Your task to perform on an android device: move a message to another label in the gmail app Image 0: 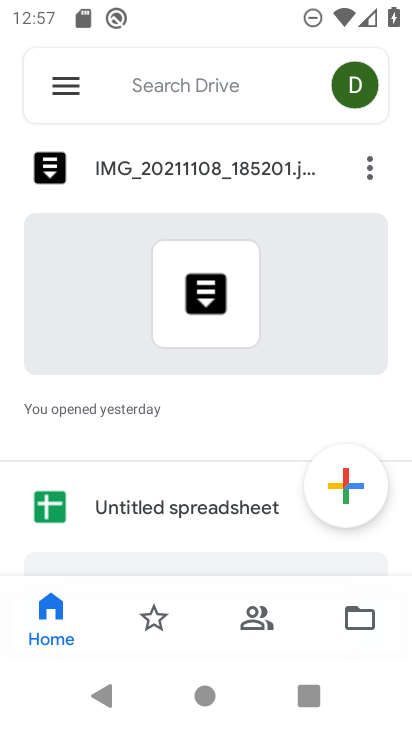
Step 0: press home button
Your task to perform on an android device: move a message to another label in the gmail app Image 1: 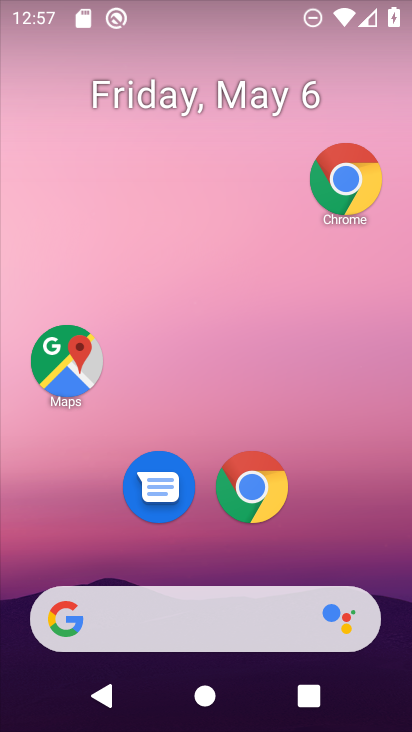
Step 1: drag from (366, 511) to (325, 58)
Your task to perform on an android device: move a message to another label in the gmail app Image 2: 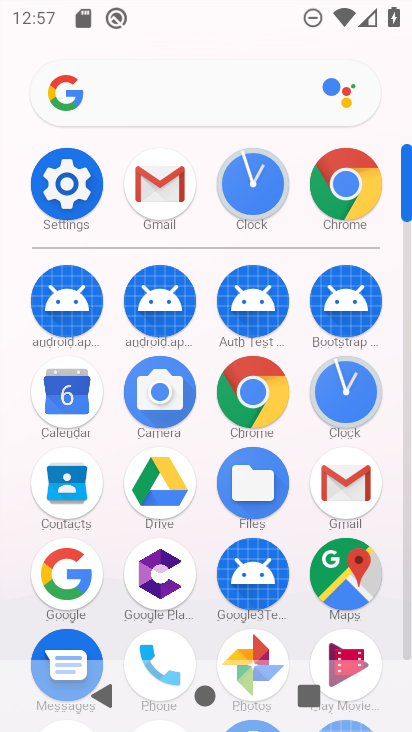
Step 2: click (76, 196)
Your task to perform on an android device: move a message to another label in the gmail app Image 3: 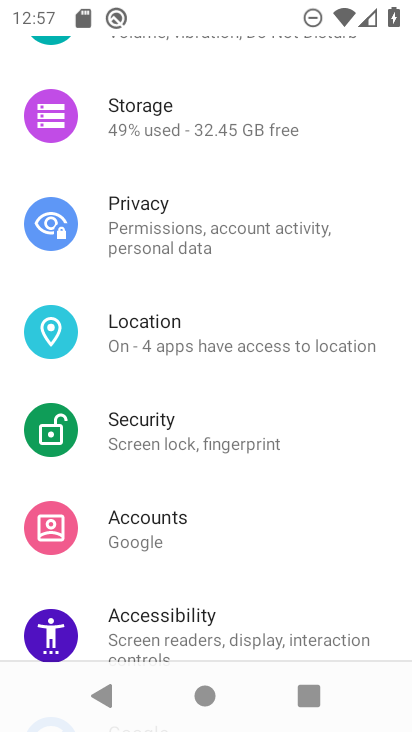
Step 3: press home button
Your task to perform on an android device: move a message to another label in the gmail app Image 4: 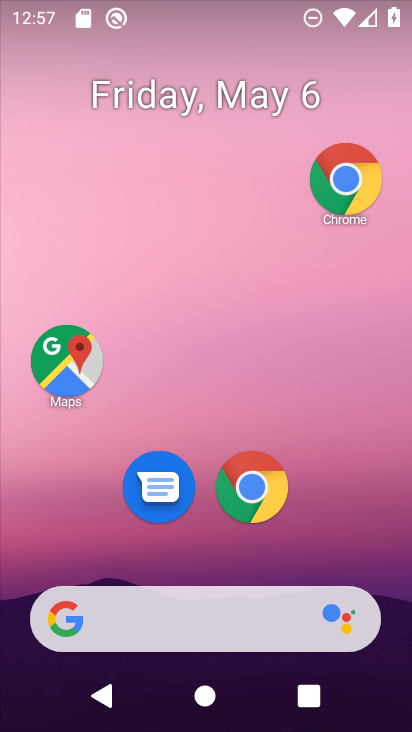
Step 4: drag from (318, 540) to (248, 207)
Your task to perform on an android device: move a message to another label in the gmail app Image 5: 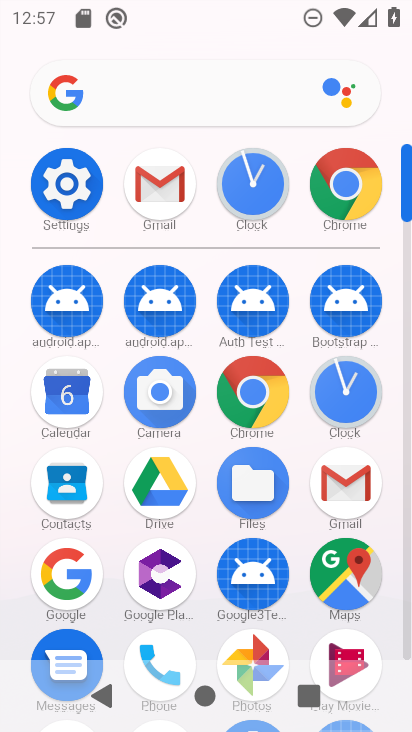
Step 5: click (156, 188)
Your task to perform on an android device: move a message to another label in the gmail app Image 6: 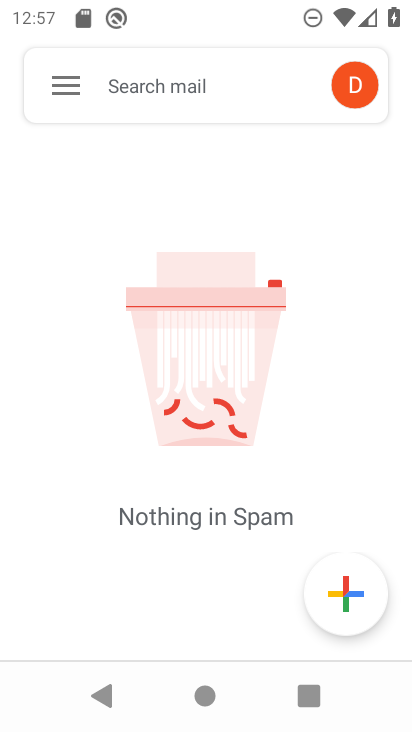
Step 6: click (74, 98)
Your task to perform on an android device: move a message to another label in the gmail app Image 7: 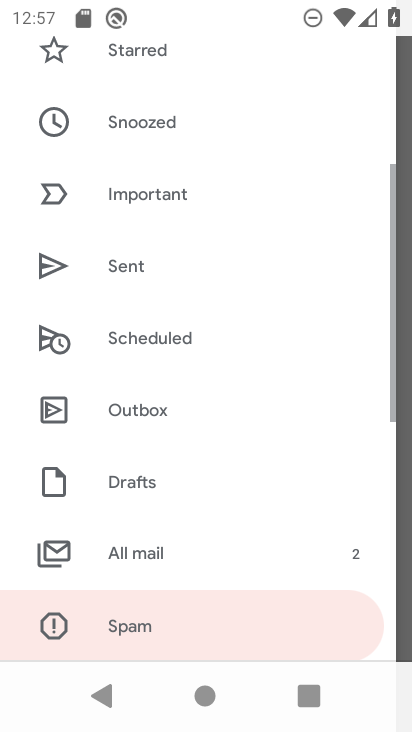
Step 7: click (161, 342)
Your task to perform on an android device: move a message to another label in the gmail app Image 8: 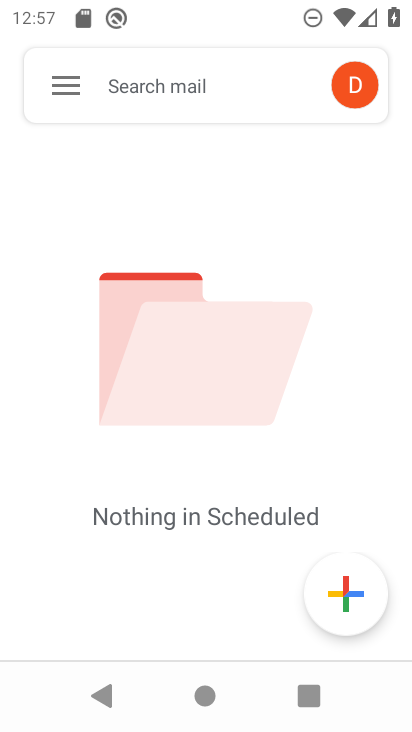
Step 8: click (67, 101)
Your task to perform on an android device: move a message to another label in the gmail app Image 9: 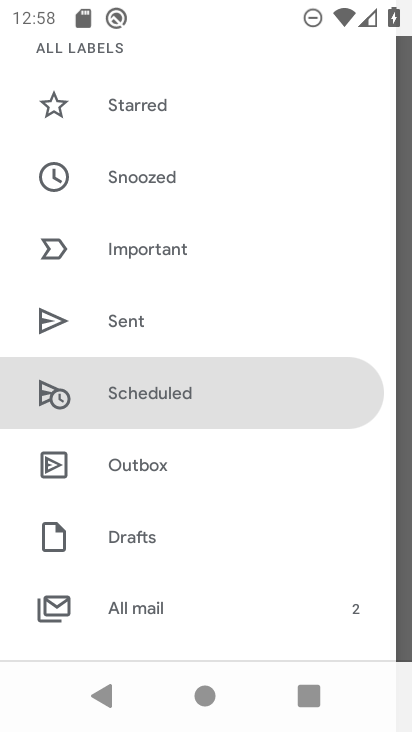
Step 9: click (148, 603)
Your task to perform on an android device: move a message to another label in the gmail app Image 10: 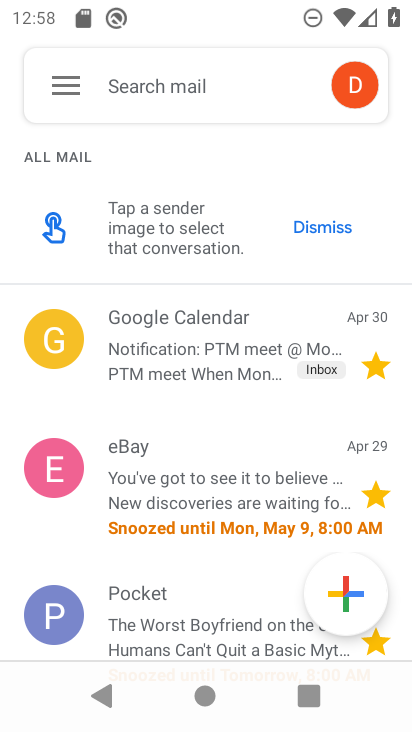
Step 10: click (210, 368)
Your task to perform on an android device: move a message to another label in the gmail app Image 11: 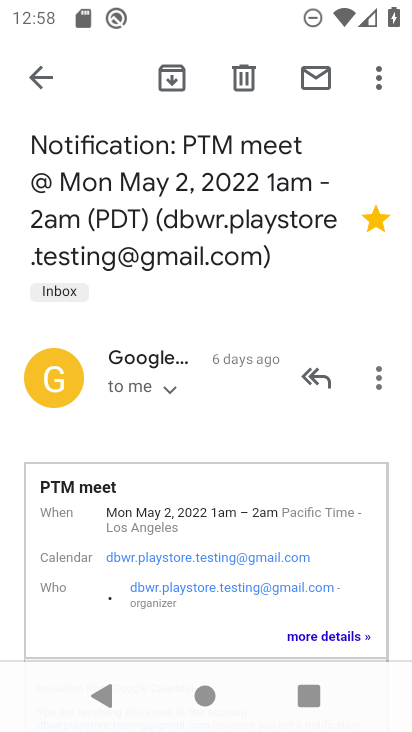
Step 11: click (384, 82)
Your task to perform on an android device: move a message to another label in the gmail app Image 12: 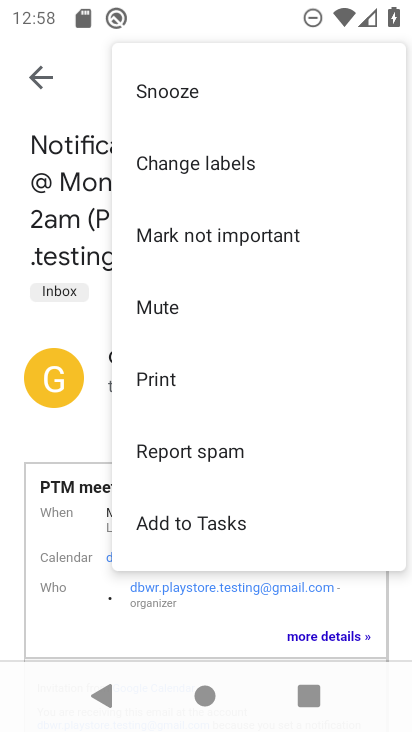
Step 12: click (240, 167)
Your task to perform on an android device: move a message to another label in the gmail app Image 13: 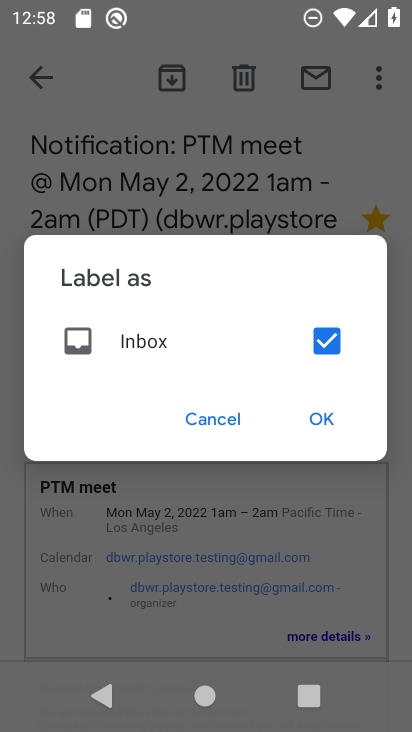
Step 13: click (321, 409)
Your task to perform on an android device: move a message to another label in the gmail app Image 14: 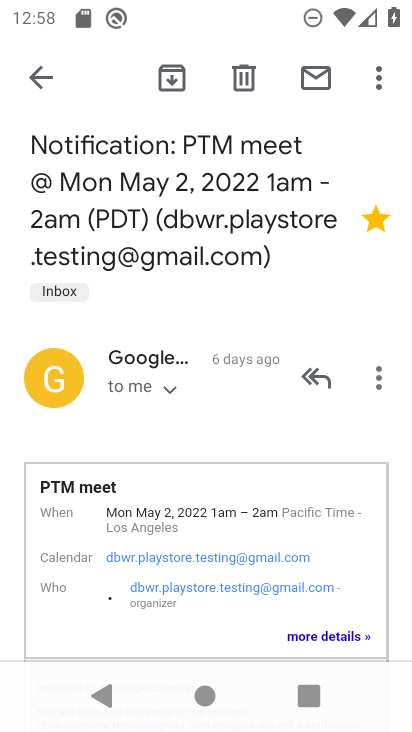
Step 14: task complete